Your task to perform on an android device: turn on the 12-hour format for clock Image 0: 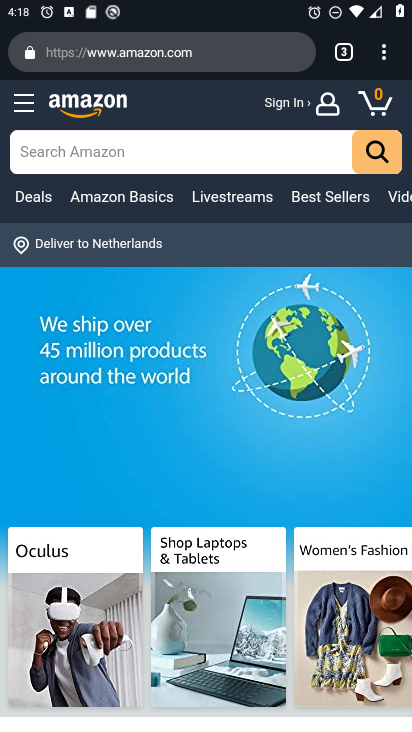
Step 0: press home button
Your task to perform on an android device: turn on the 12-hour format for clock Image 1: 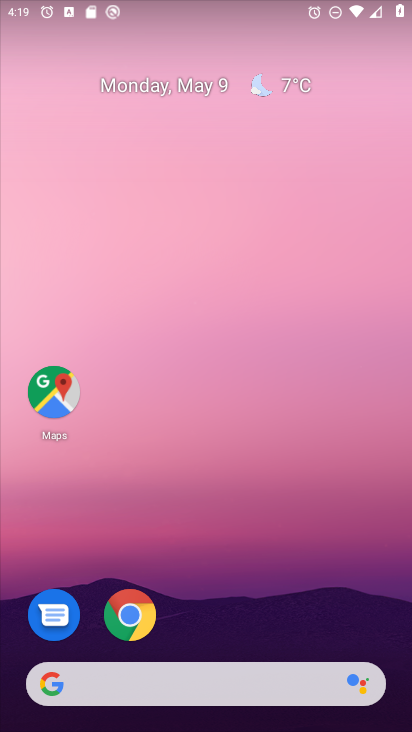
Step 1: drag from (363, 628) to (313, 60)
Your task to perform on an android device: turn on the 12-hour format for clock Image 2: 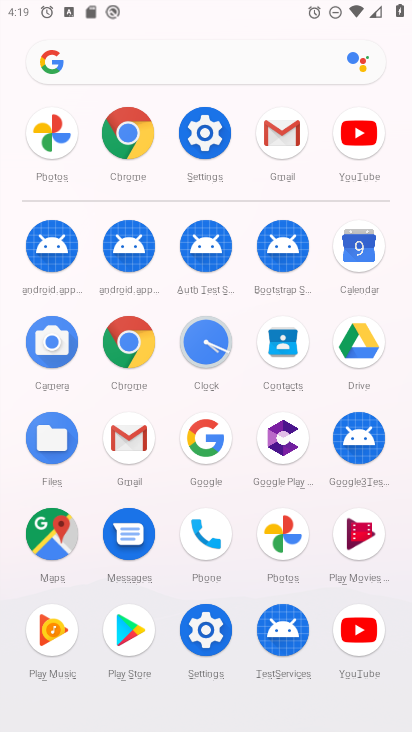
Step 2: click (200, 345)
Your task to perform on an android device: turn on the 12-hour format for clock Image 3: 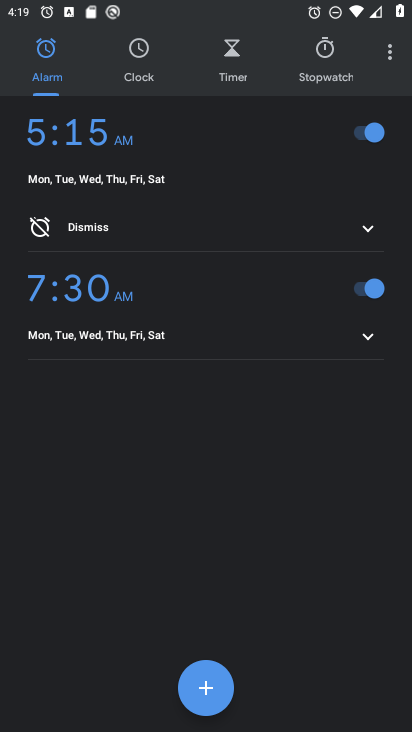
Step 3: click (389, 57)
Your task to perform on an android device: turn on the 12-hour format for clock Image 4: 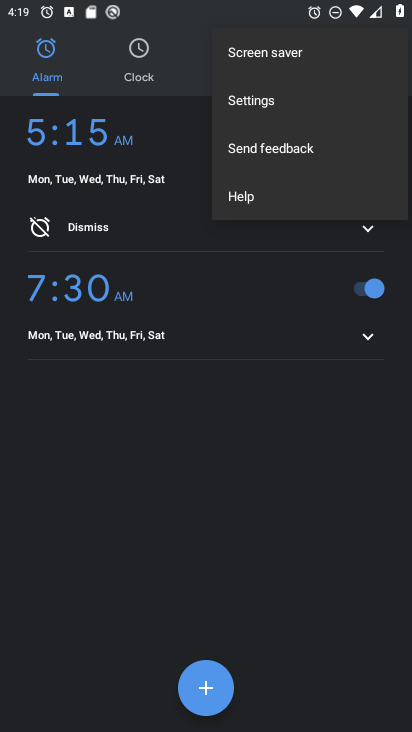
Step 4: click (256, 96)
Your task to perform on an android device: turn on the 12-hour format for clock Image 5: 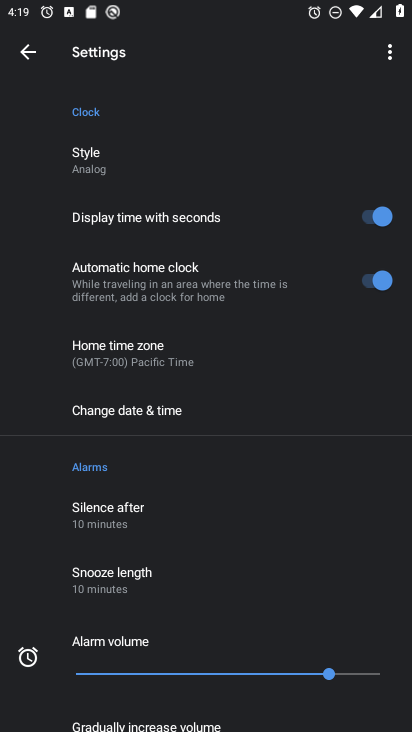
Step 5: click (153, 412)
Your task to perform on an android device: turn on the 12-hour format for clock Image 6: 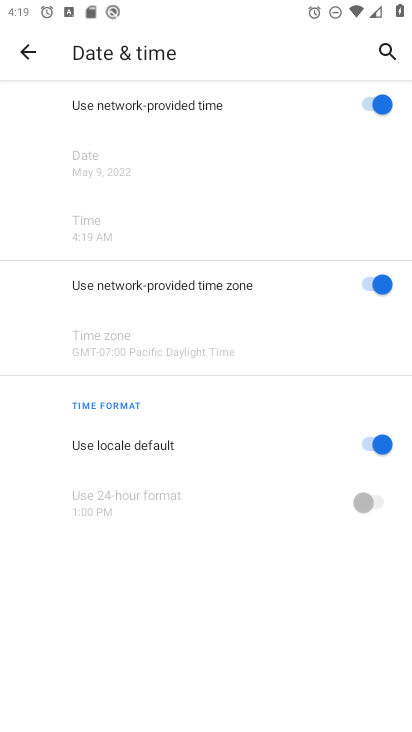
Step 6: task complete